Your task to perform on an android device: open a bookmark in the chrome app Image 0: 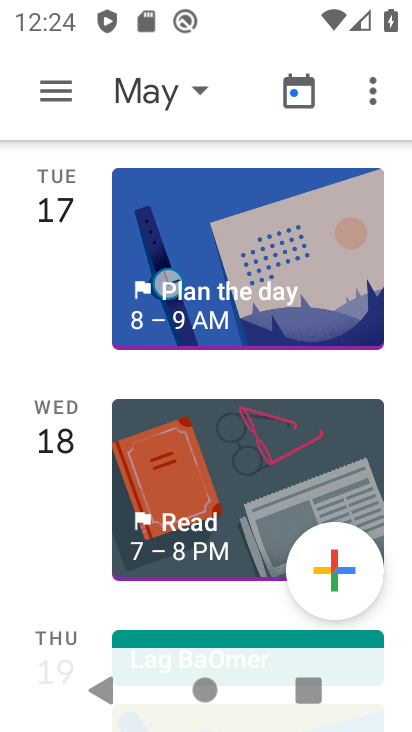
Step 0: press home button
Your task to perform on an android device: open a bookmark in the chrome app Image 1: 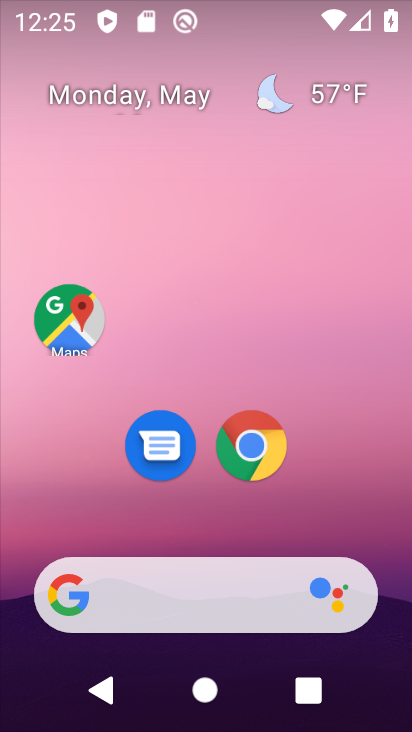
Step 1: drag from (387, 510) to (303, 50)
Your task to perform on an android device: open a bookmark in the chrome app Image 2: 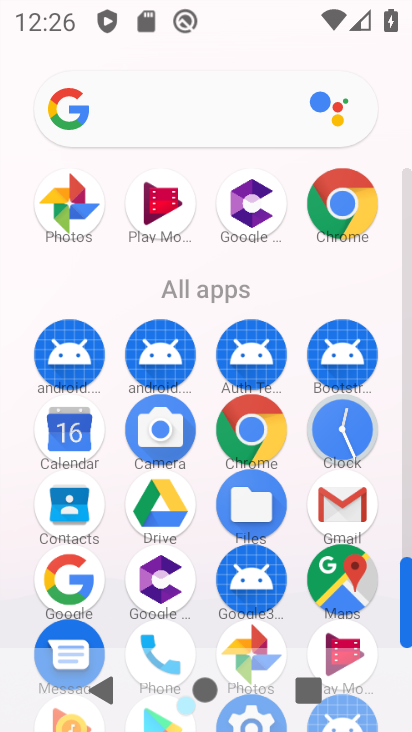
Step 2: click (358, 188)
Your task to perform on an android device: open a bookmark in the chrome app Image 3: 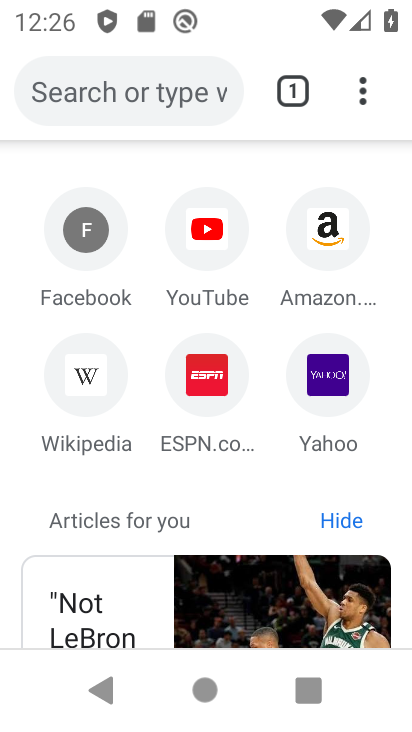
Step 3: click (369, 91)
Your task to perform on an android device: open a bookmark in the chrome app Image 4: 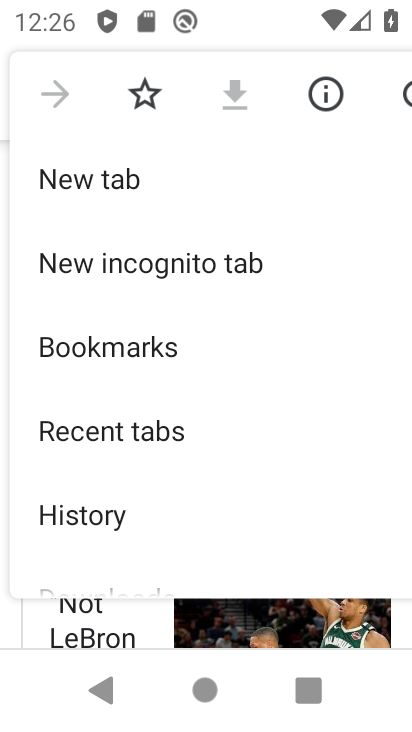
Step 4: click (193, 361)
Your task to perform on an android device: open a bookmark in the chrome app Image 5: 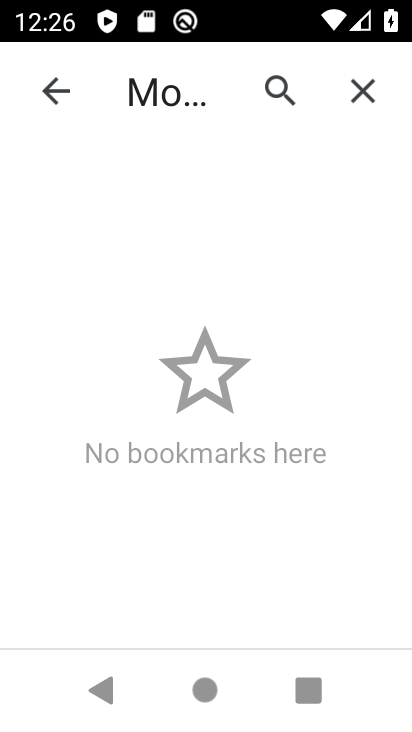
Step 5: task complete